Your task to perform on an android device: Open notification settings Image 0: 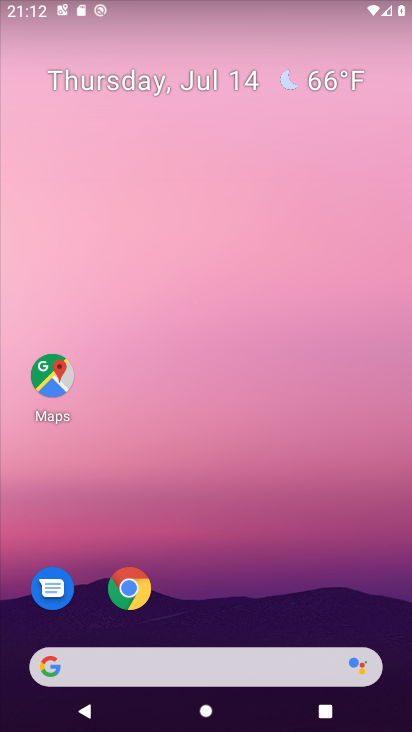
Step 0: drag from (301, 610) to (319, 24)
Your task to perform on an android device: Open notification settings Image 1: 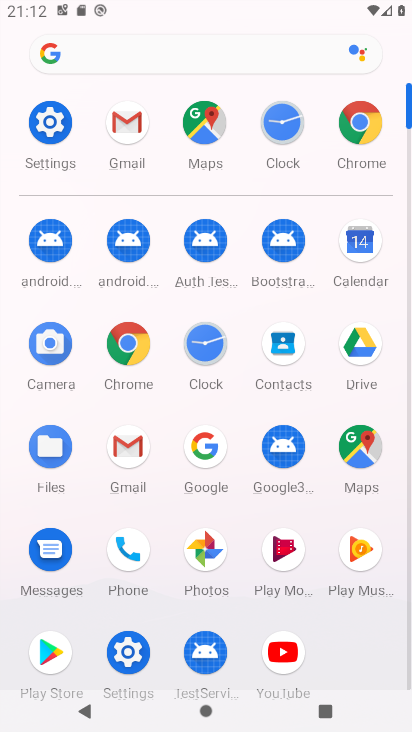
Step 1: click (128, 649)
Your task to perform on an android device: Open notification settings Image 2: 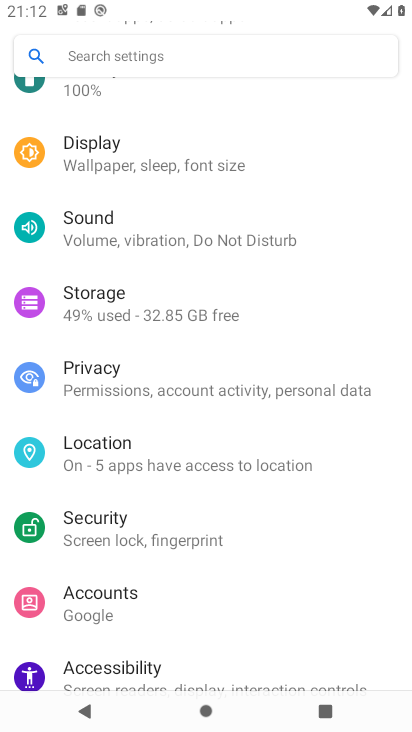
Step 2: drag from (360, 572) to (358, 489)
Your task to perform on an android device: Open notification settings Image 3: 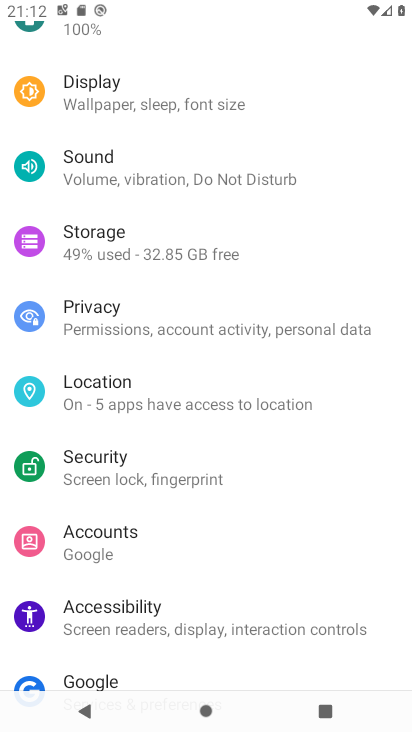
Step 3: drag from (350, 552) to (355, 484)
Your task to perform on an android device: Open notification settings Image 4: 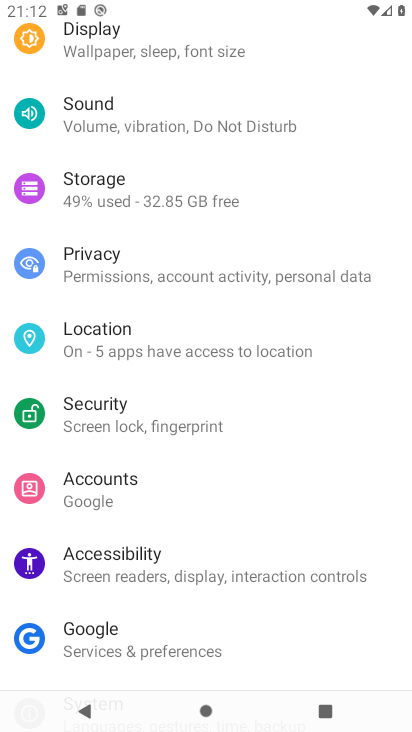
Step 4: drag from (356, 593) to (357, 481)
Your task to perform on an android device: Open notification settings Image 5: 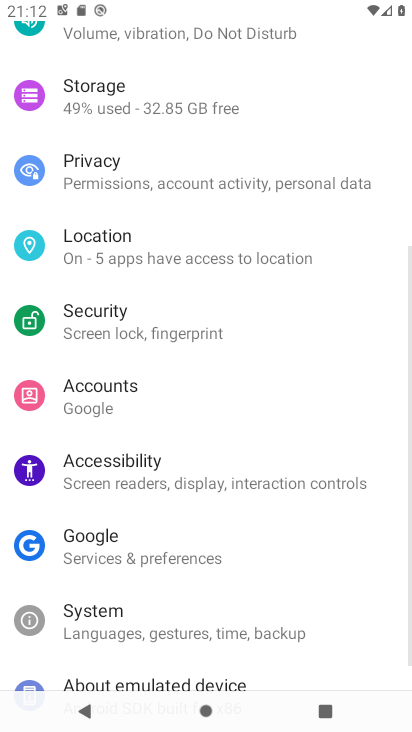
Step 5: drag from (368, 574) to (376, 456)
Your task to perform on an android device: Open notification settings Image 6: 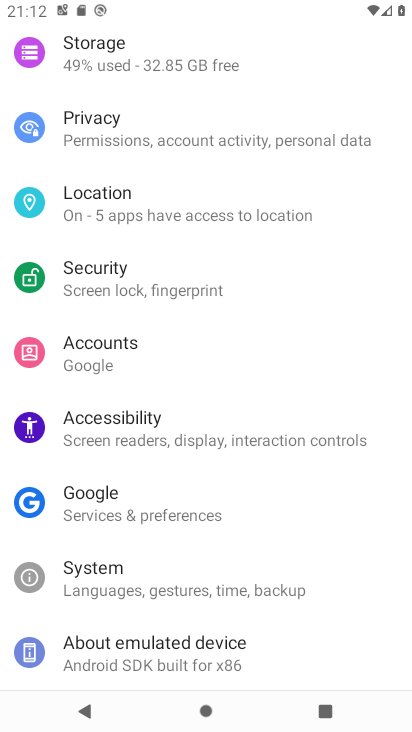
Step 6: drag from (378, 353) to (376, 432)
Your task to perform on an android device: Open notification settings Image 7: 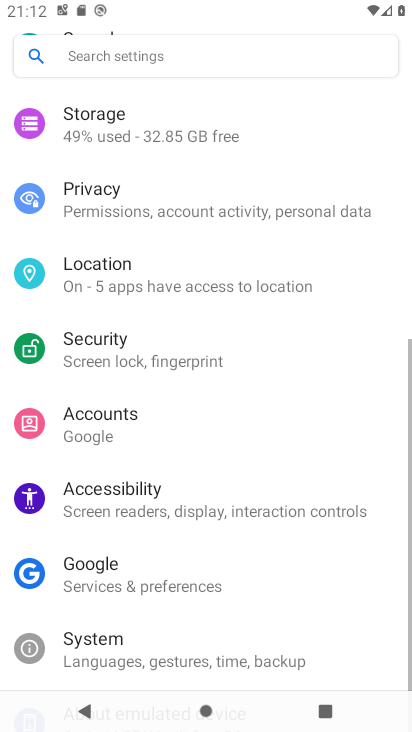
Step 7: drag from (377, 327) to (378, 415)
Your task to perform on an android device: Open notification settings Image 8: 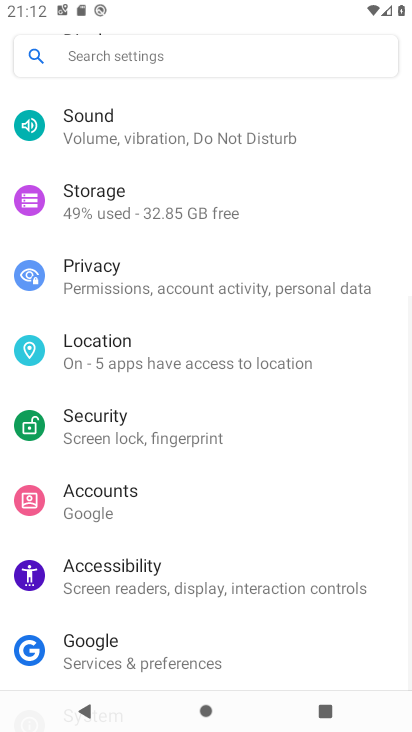
Step 8: drag from (378, 324) to (380, 396)
Your task to perform on an android device: Open notification settings Image 9: 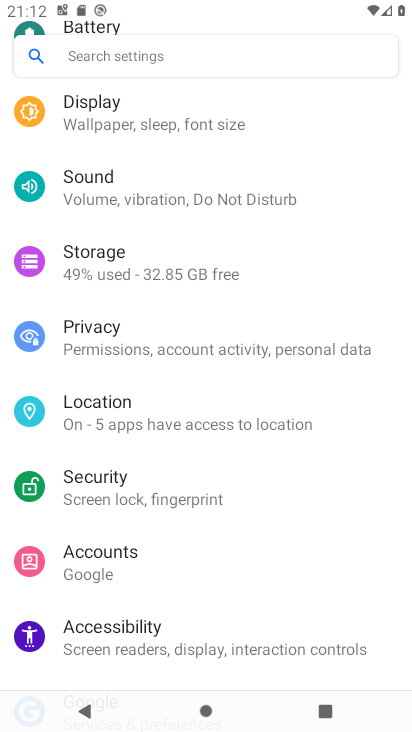
Step 9: drag from (377, 312) to (376, 381)
Your task to perform on an android device: Open notification settings Image 10: 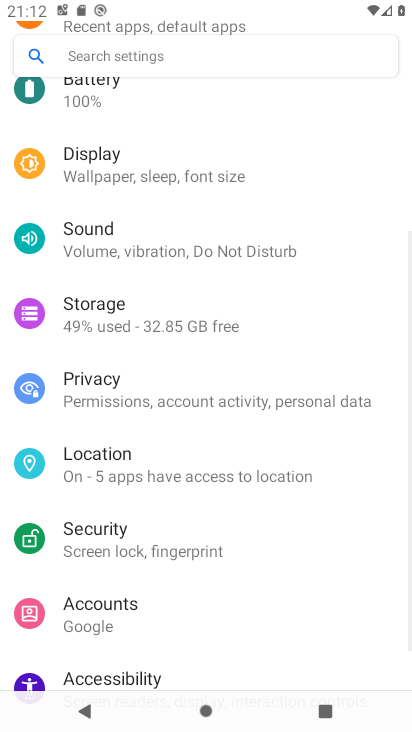
Step 10: drag from (378, 290) to (379, 355)
Your task to perform on an android device: Open notification settings Image 11: 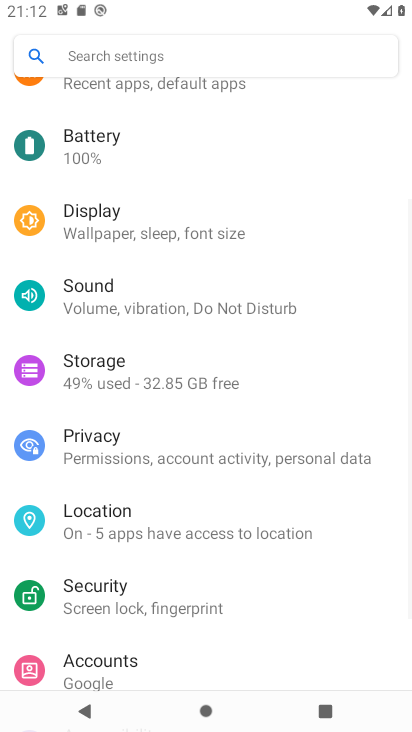
Step 11: drag from (379, 306) to (378, 378)
Your task to perform on an android device: Open notification settings Image 12: 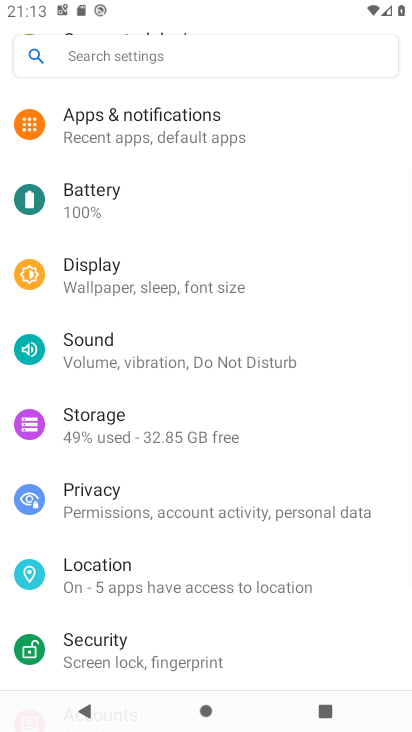
Step 12: drag from (367, 306) to (366, 401)
Your task to perform on an android device: Open notification settings Image 13: 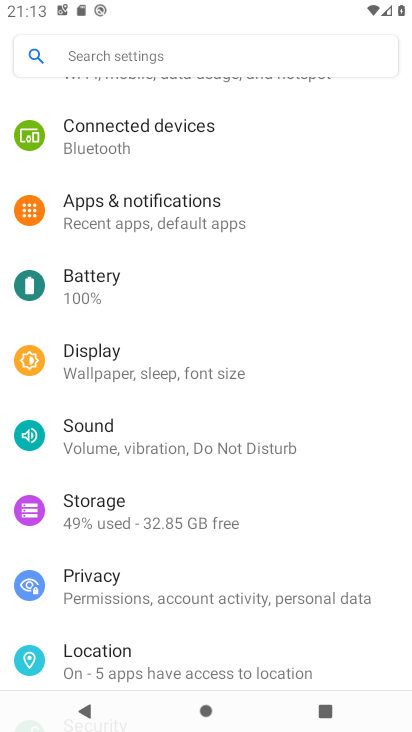
Step 13: click (216, 215)
Your task to perform on an android device: Open notification settings Image 14: 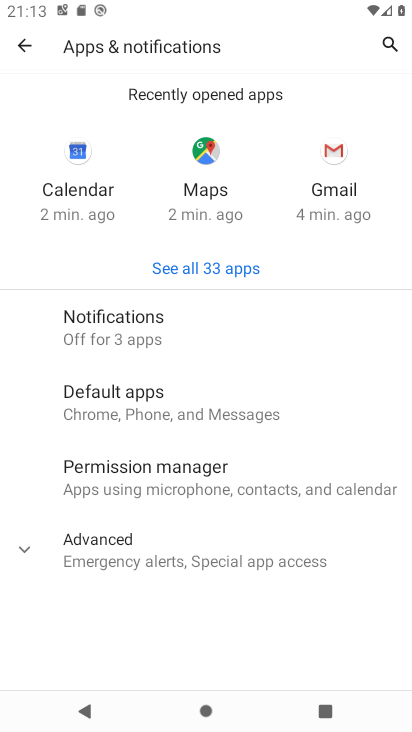
Step 14: click (265, 336)
Your task to perform on an android device: Open notification settings Image 15: 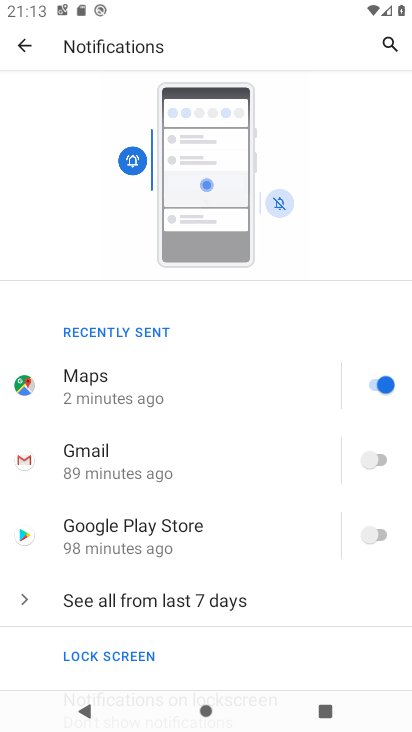
Step 15: task complete